Your task to perform on an android device: Show me recent news Image 0: 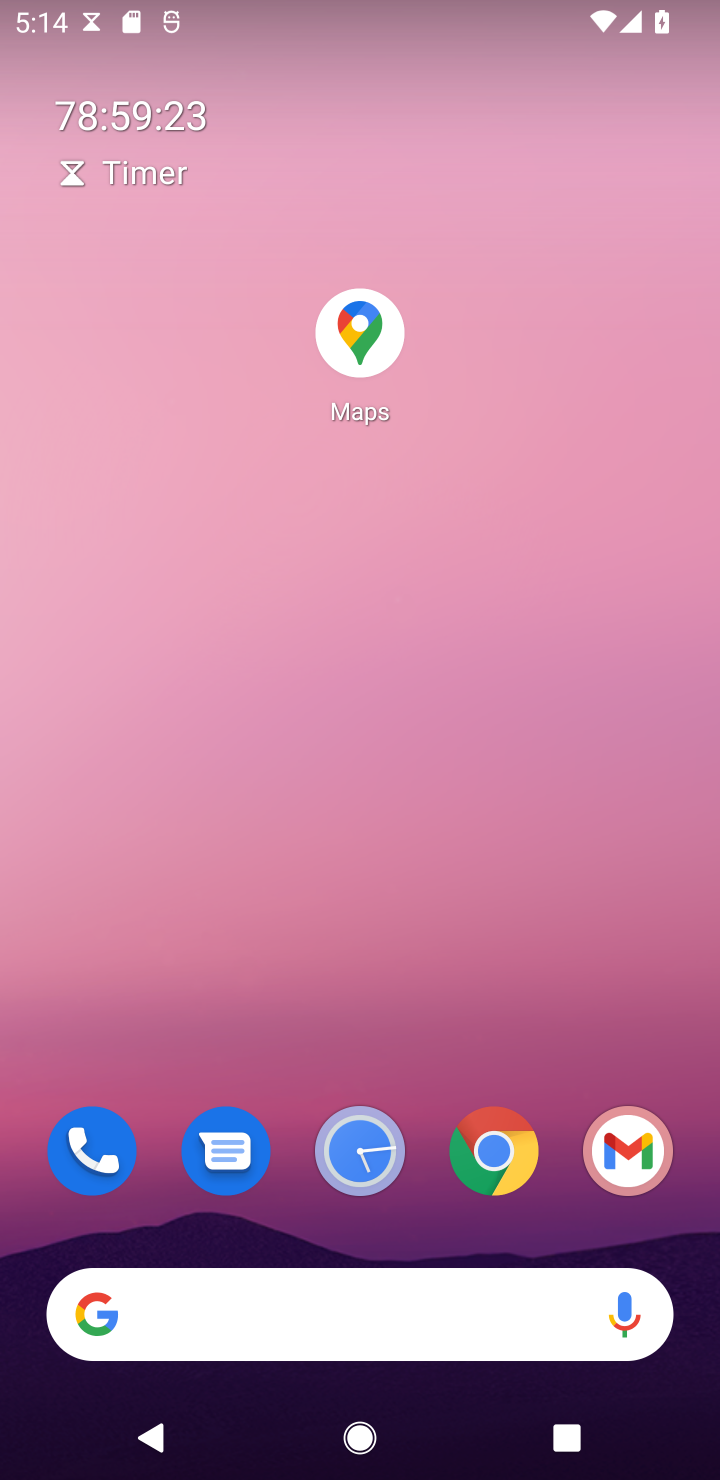
Step 0: drag from (355, 386) to (365, 317)
Your task to perform on an android device: Show me recent news Image 1: 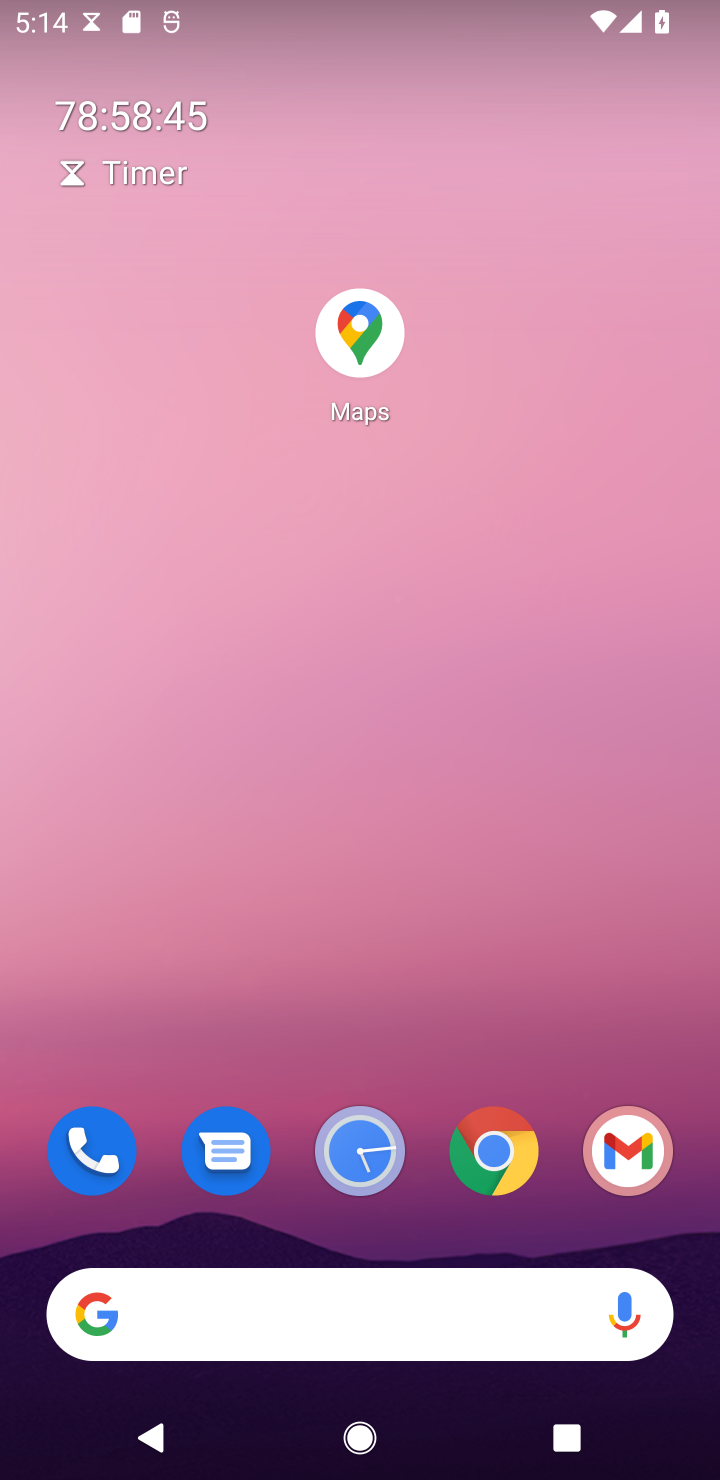
Step 1: drag from (561, 1322) to (544, 230)
Your task to perform on an android device: Show me recent news Image 2: 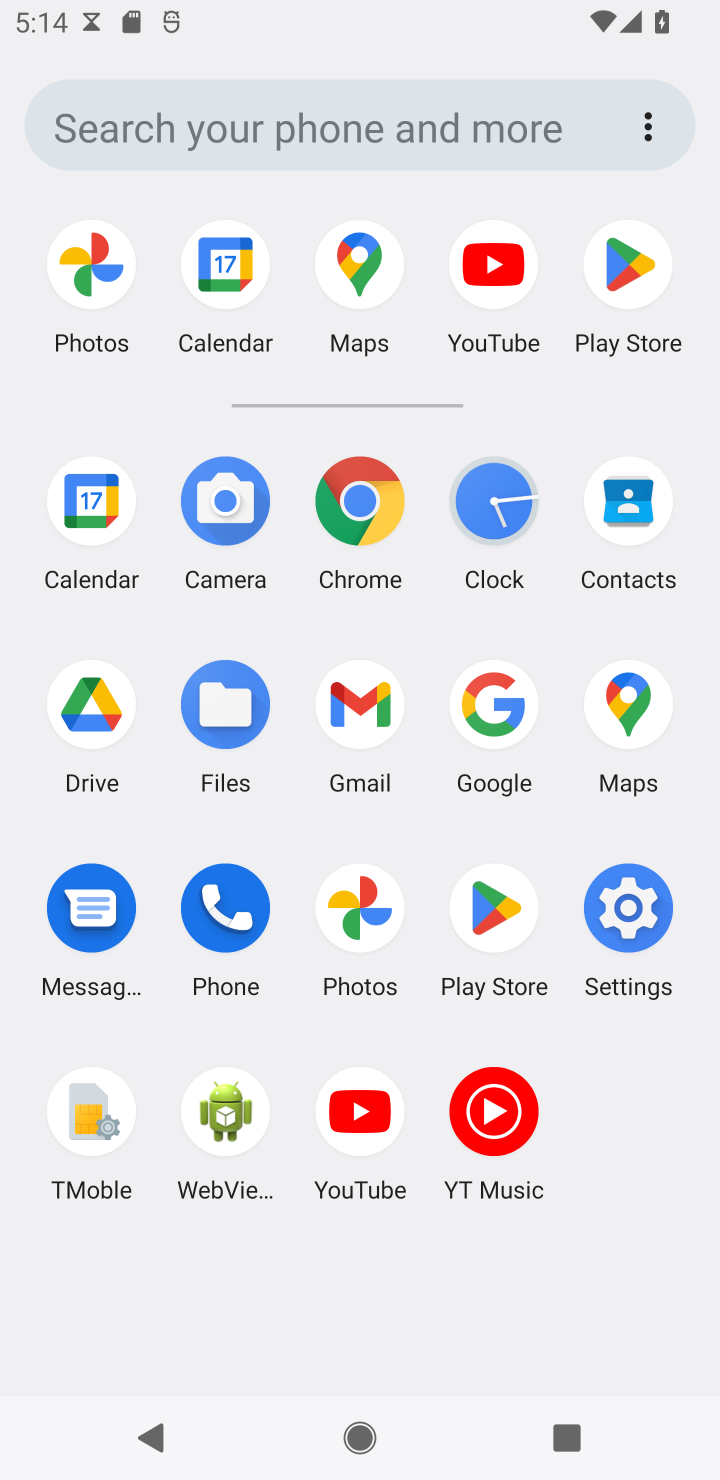
Step 2: click (349, 492)
Your task to perform on an android device: Show me recent news Image 3: 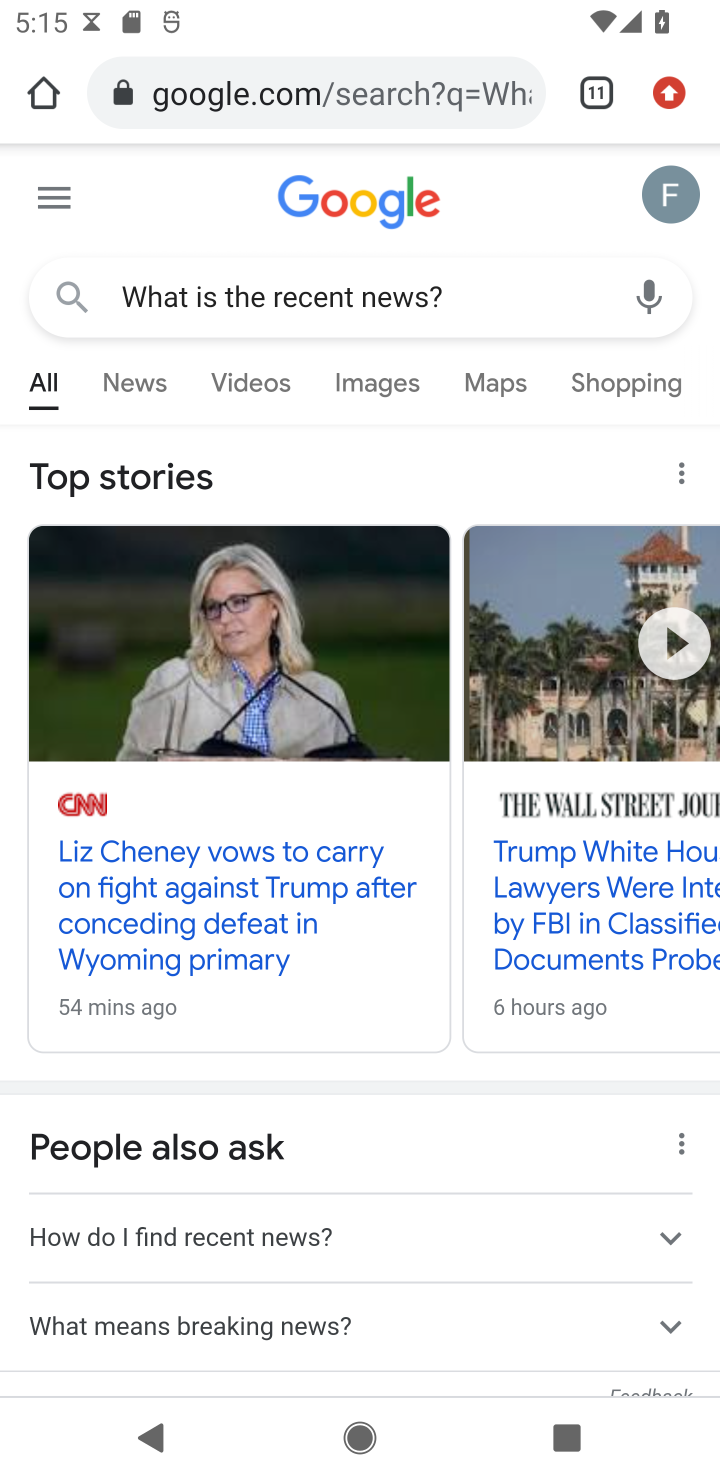
Step 3: click (500, 292)
Your task to perform on an android device: Show me recent news Image 4: 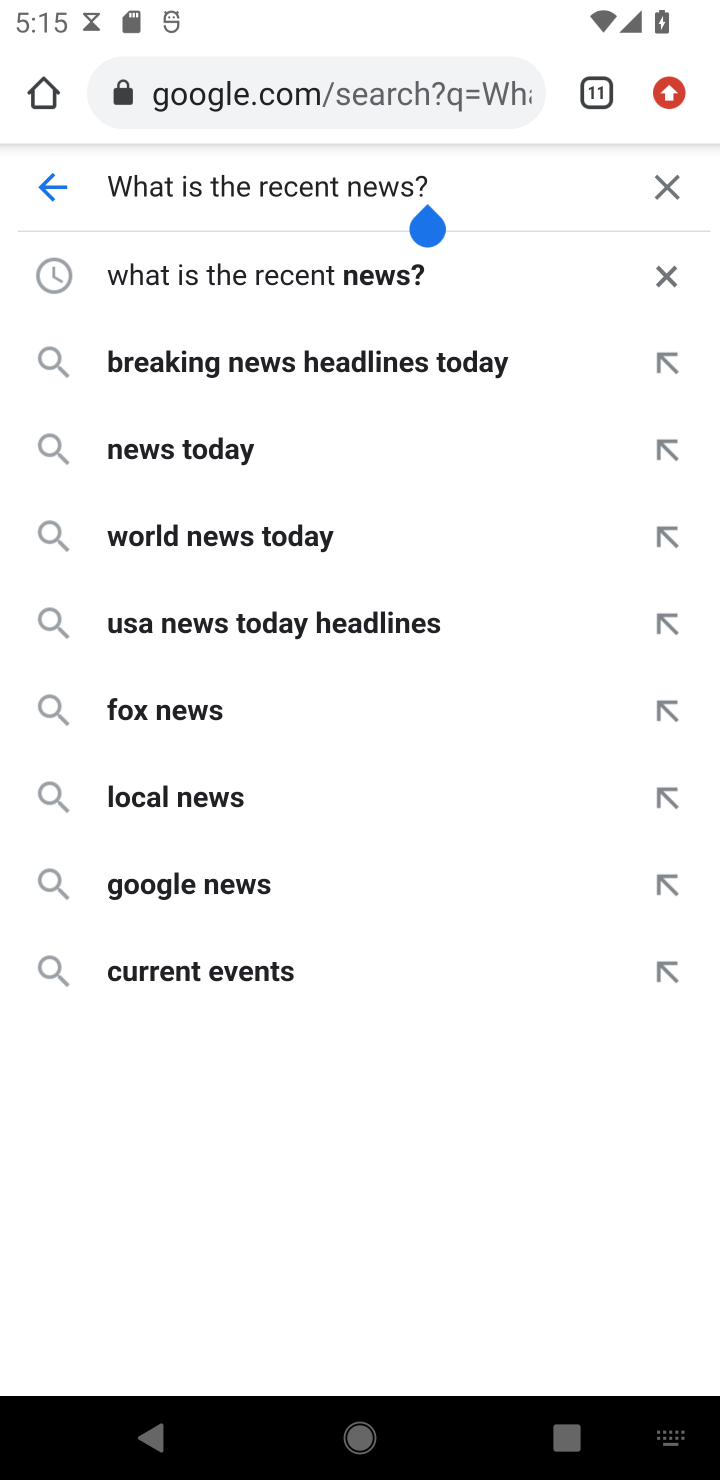
Step 4: click (500, 292)
Your task to perform on an android device: Show me recent news Image 5: 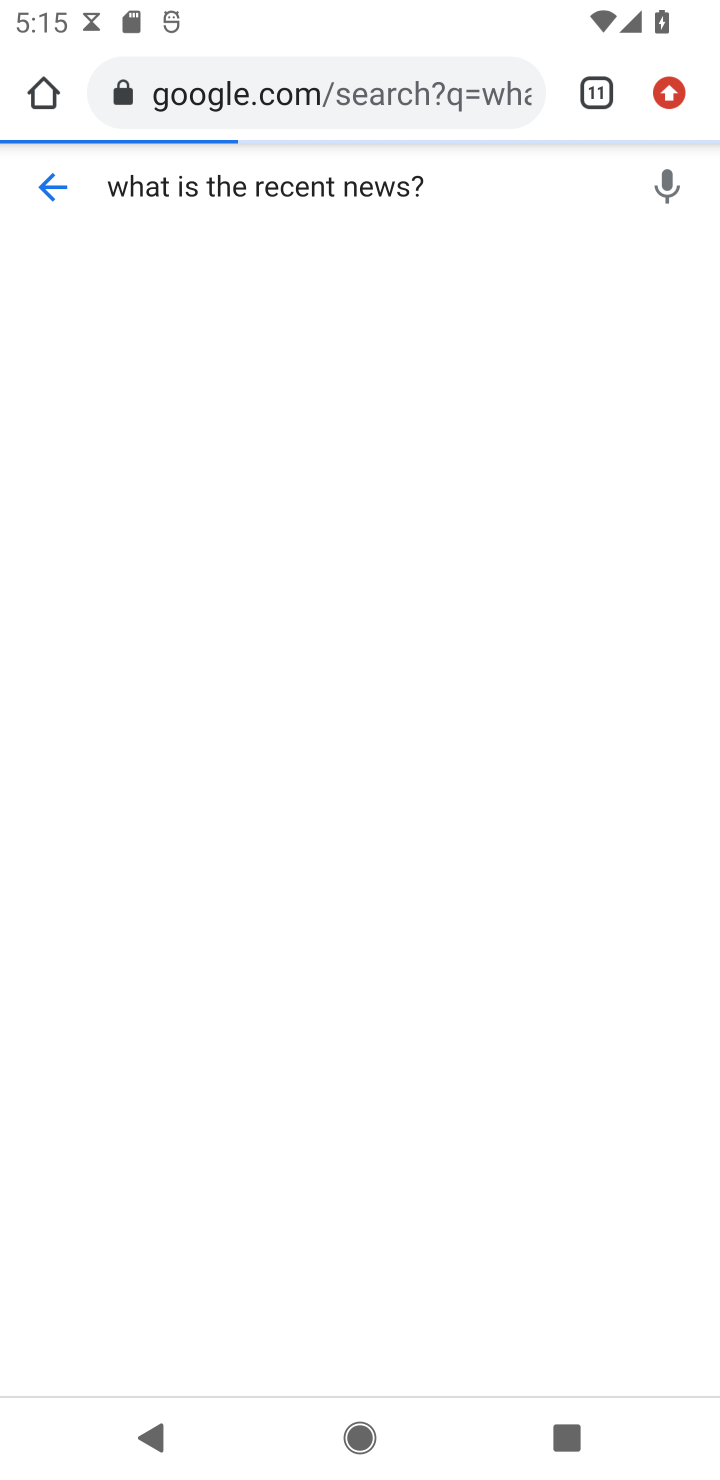
Step 5: click (335, 295)
Your task to perform on an android device: Show me recent news Image 6: 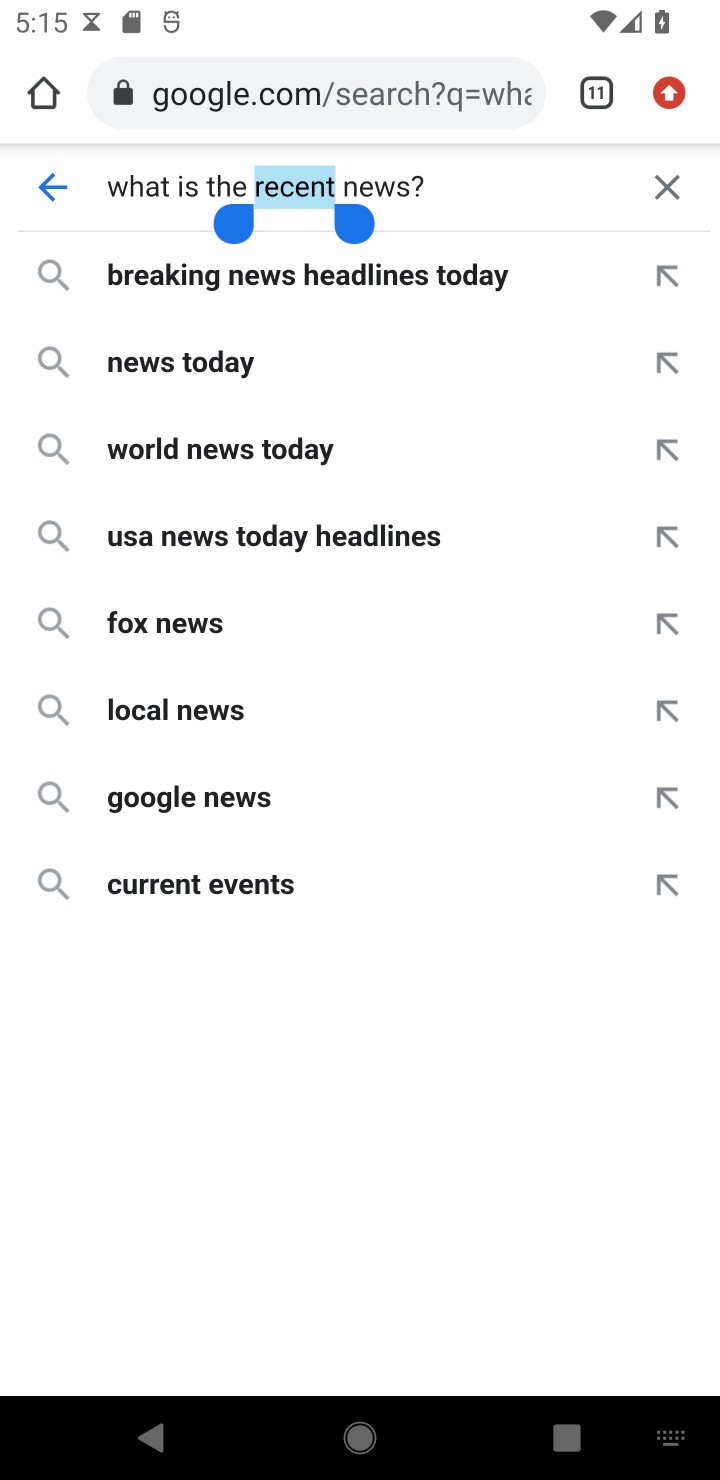
Step 6: click (681, 177)
Your task to perform on an android device: Show me recent news Image 7: 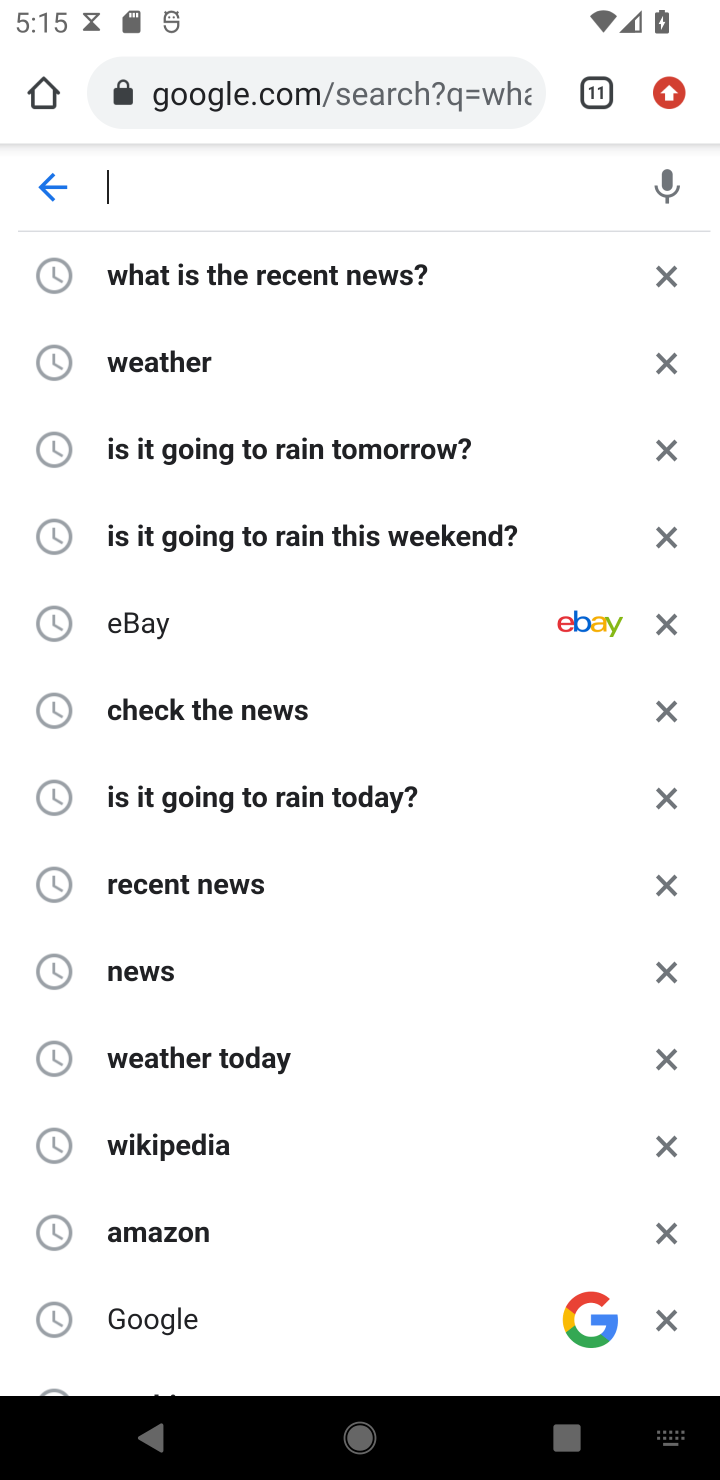
Step 7: click (293, 174)
Your task to perform on an android device: Show me recent news Image 8: 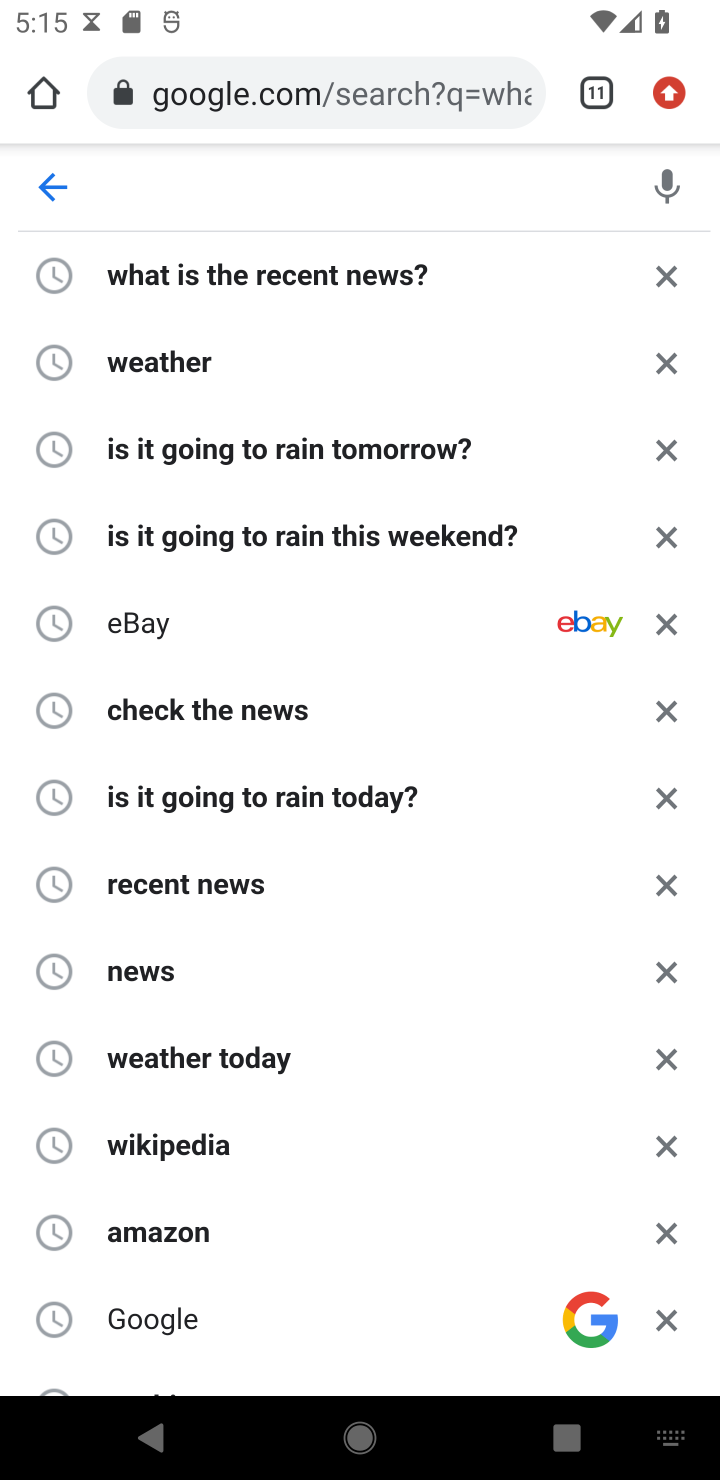
Step 8: type "Show me recent news "
Your task to perform on an android device: Show me recent news Image 9: 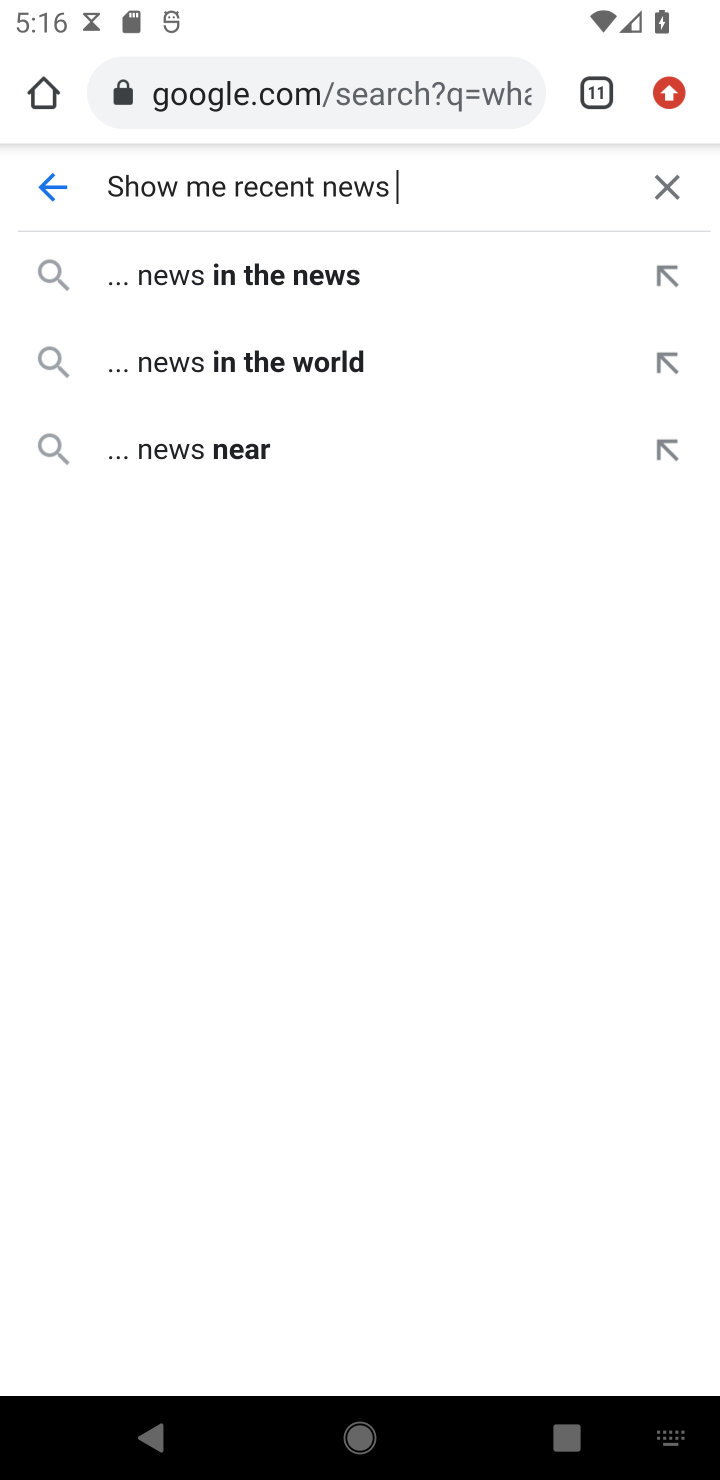
Step 9: click (358, 171)
Your task to perform on an android device: Show me recent news Image 10: 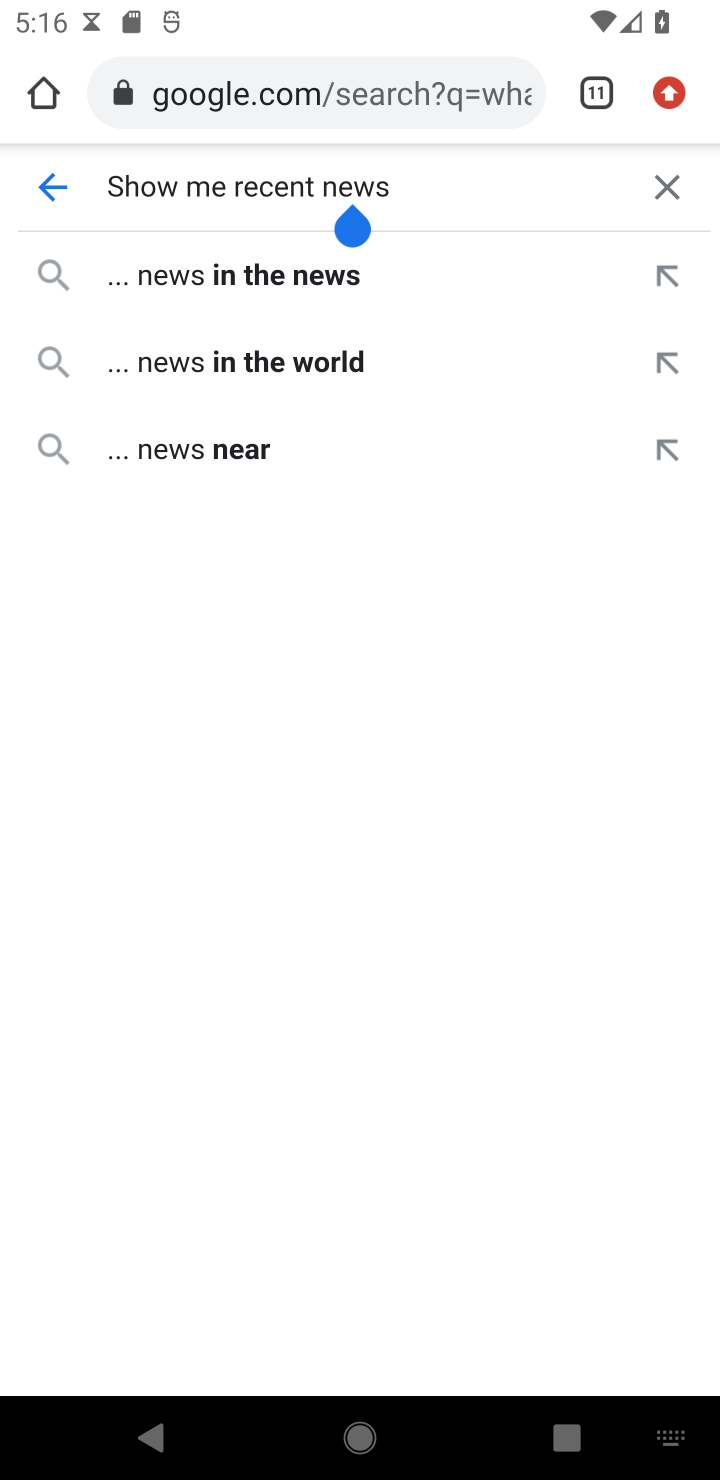
Step 10: click (270, 286)
Your task to perform on an android device: Show me recent news Image 11: 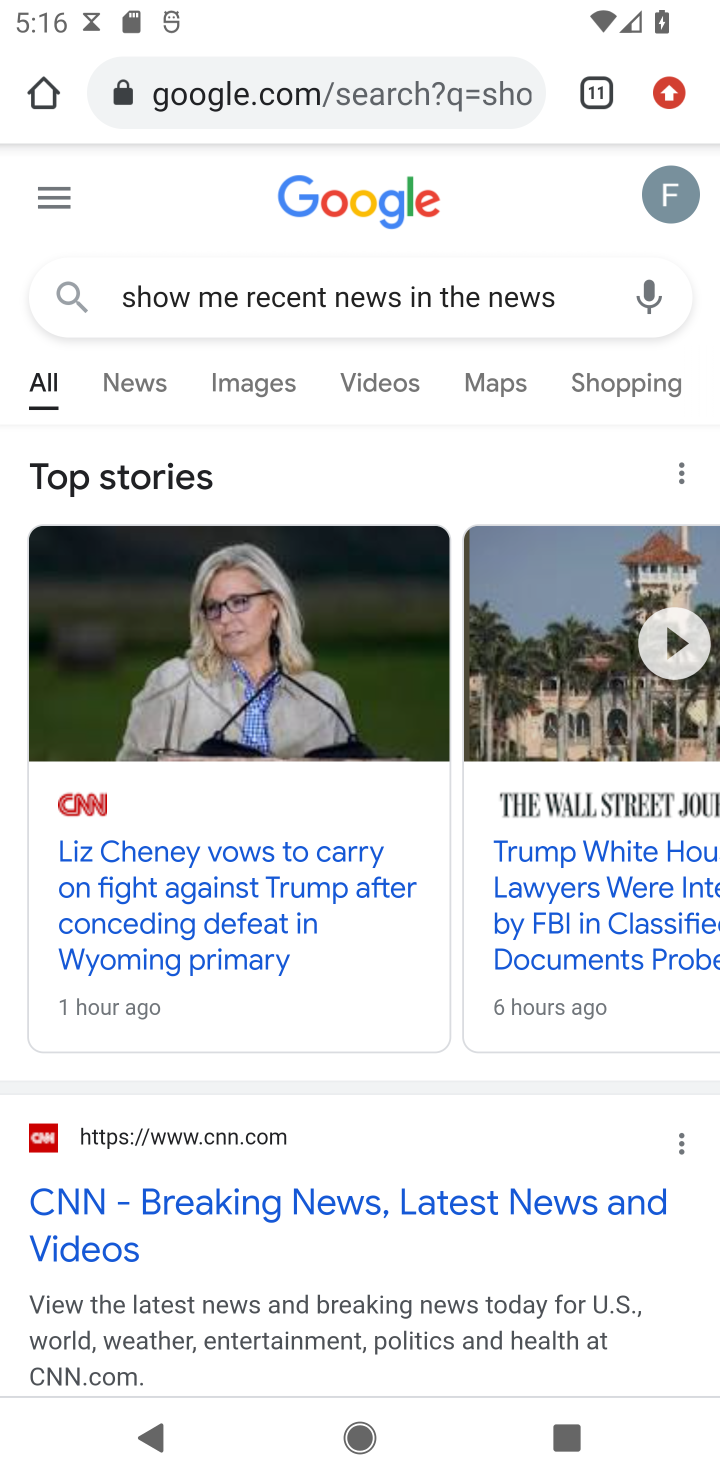
Step 11: task complete